Your task to perform on an android device: Set the phone to "Do not disturb". Image 0: 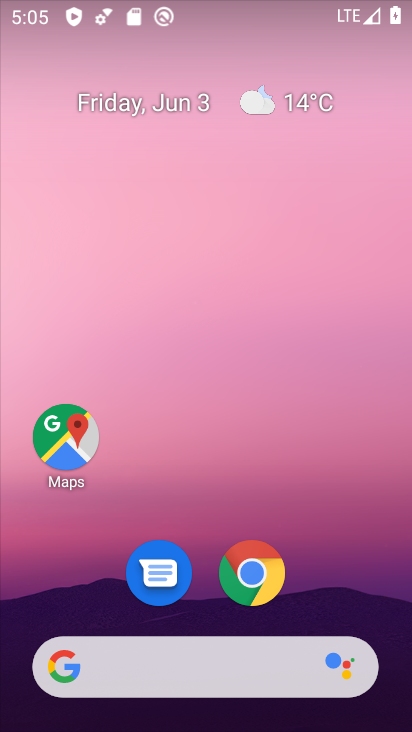
Step 0: drag from (326, 483) to (310, 46)
Your task to perform on an android device: Set the phone to "Do not disturb". Image 1: 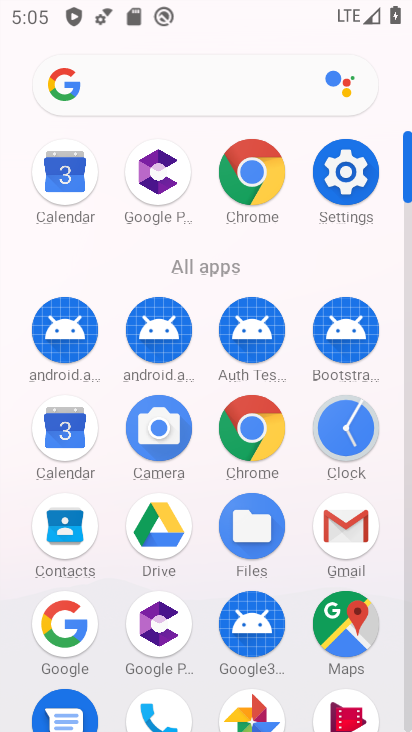
Step 1: click (369, 181)
Your task to perform on an android device: Set the phone to "Do not disturb". Image 2: 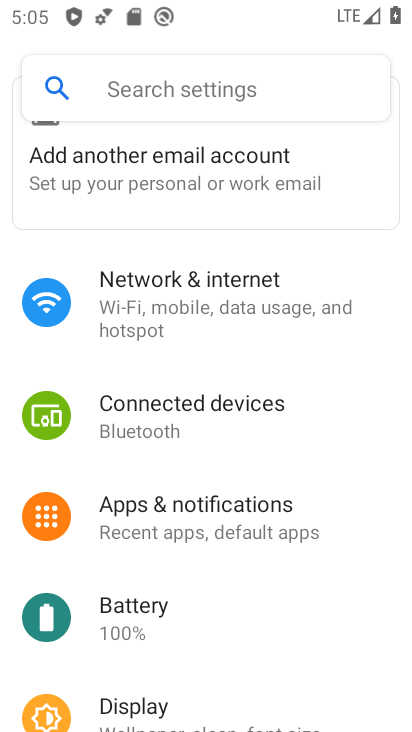
Step 2: drag from (194, 597) to (192, 238)
Your task to perform on an android device: Set the phone to "Do not disturb". Image 3: 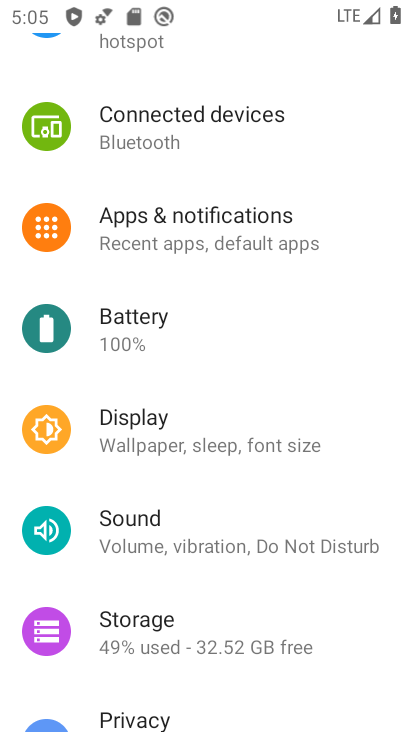
Step 3: click (160, 553)
Your task to perform on an android device: Set the phone to "Do not disturb". Image 4: 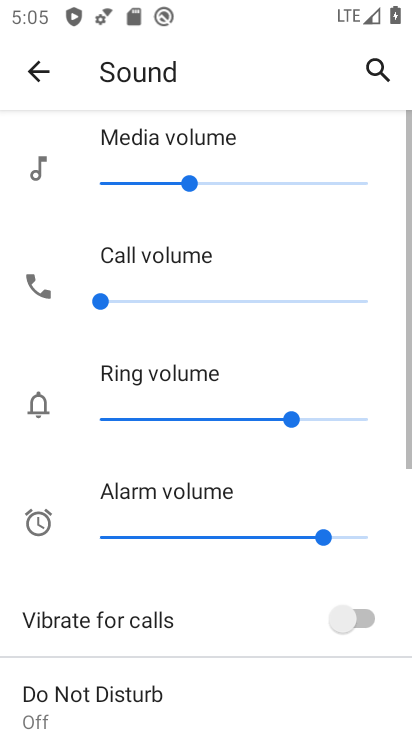
Step 4: drag from (191, 620) to (257, 115)
Your task to perform on an android device: Set the phone to "Do not disturb". Image 5: 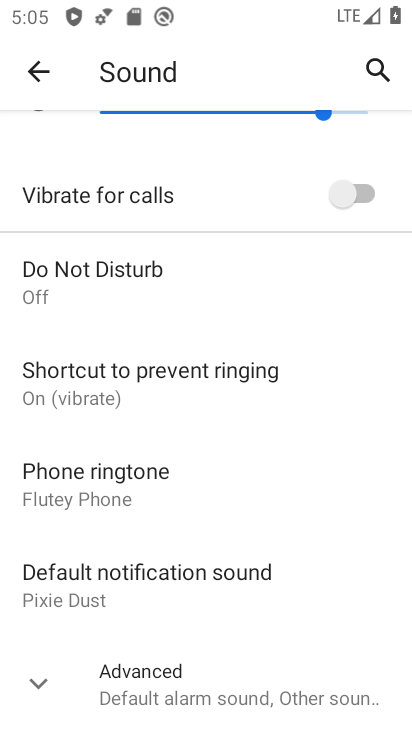
Step 5: click (221, 269)
Your task to perform on an android device: Set the phone to "Do not disturb". Image 6: 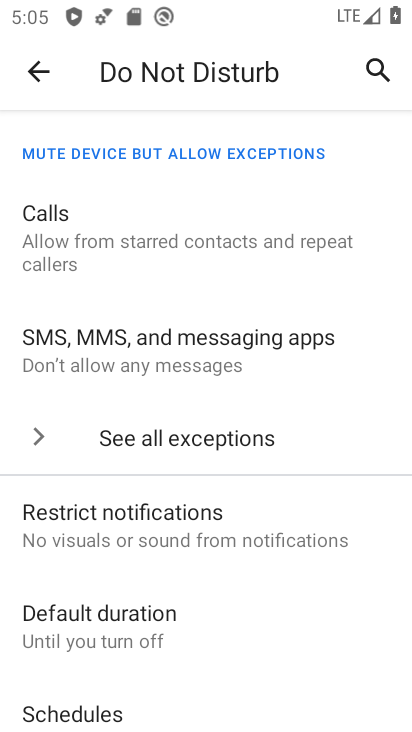
Step 6: drag from (99, 576) to (132, 180)
Your task to perform on an android device: Set the phone to "Do not disturb". Image 7: 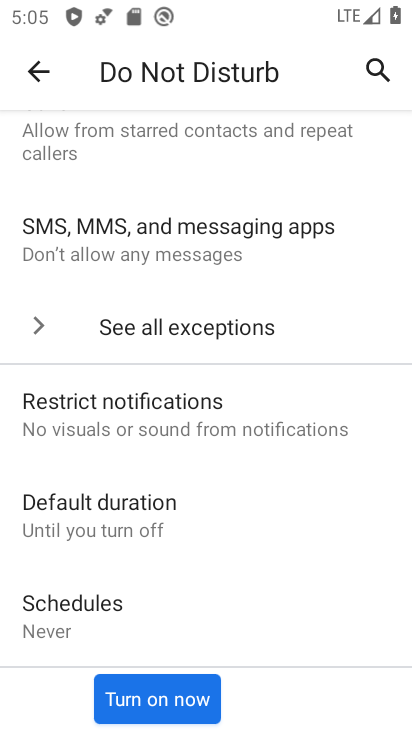
Step 7: click (130, 706)
Your task to perform on an android device: Set the phone to "Do not disturb". Image 8: 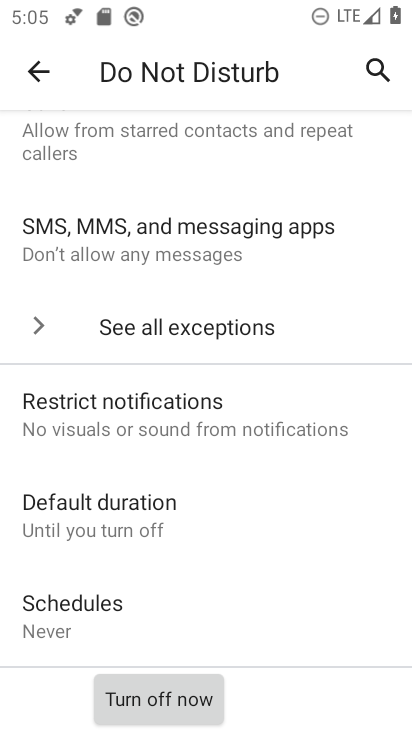
Step 8: task complete